Your task to perform on an android device: Open Google Chrome Image 0: 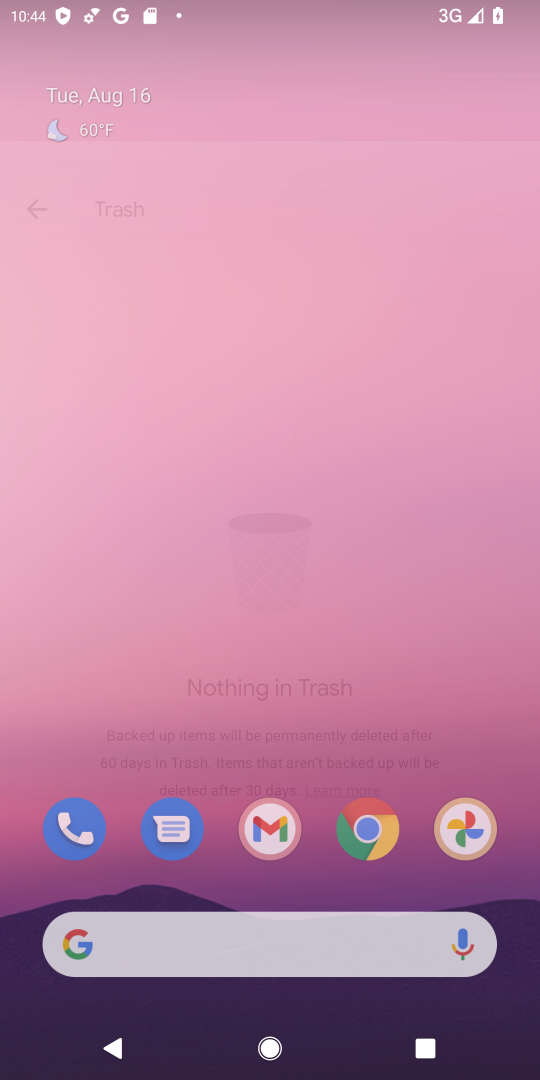
Step 0: press home button
Your task to perform on an android device: Open Google Chrome Image 1: 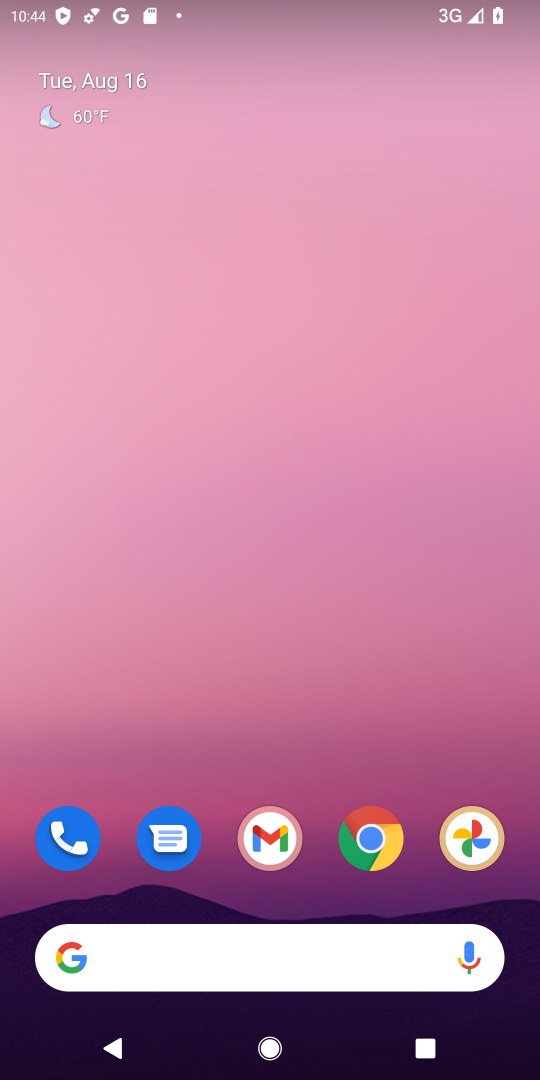
Step 1: click (364, 828)
Your task to perform on an android device: Open Google Chrome Image 2: 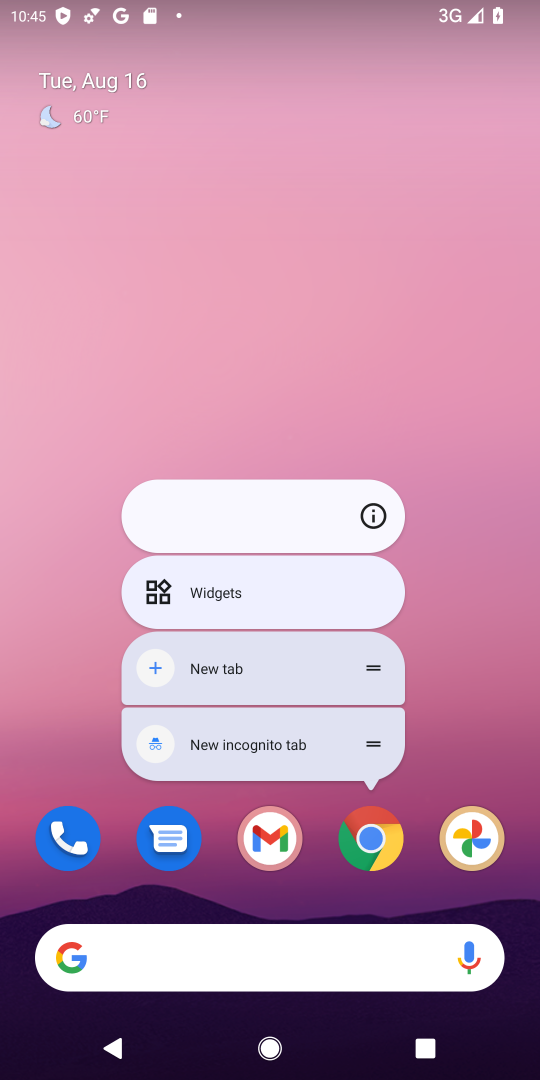
Step 2: click (371, 838)
Your task to perform on an android device: Open Google Chrome Image 3: 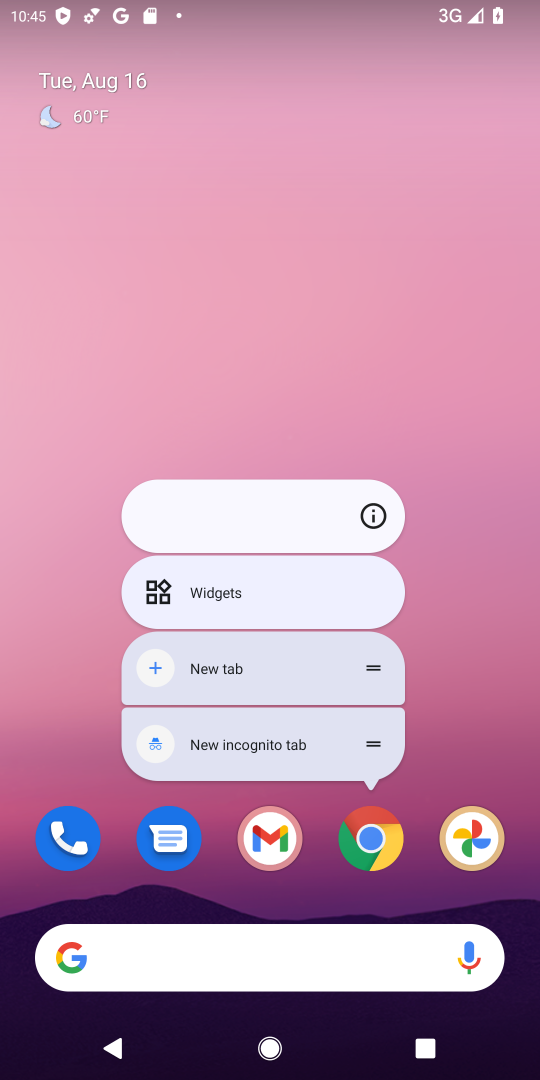
Step 3: click (357, 850)
Your task to perform on an android device: Open Google Chrome Image 4: 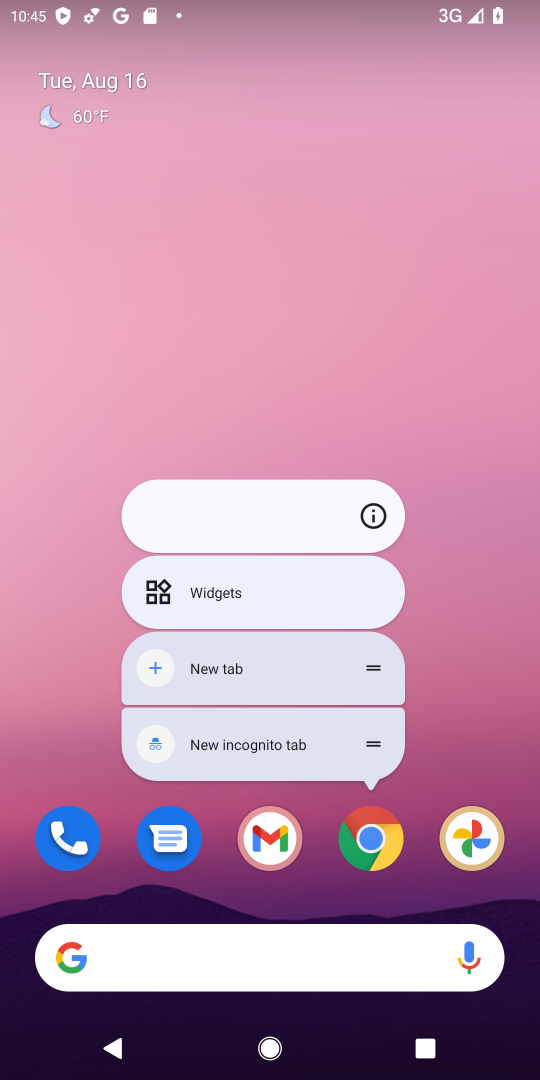
Step 4: click (371, 841)
Your task to perform on an android device: Open Google Chrome Image 5: 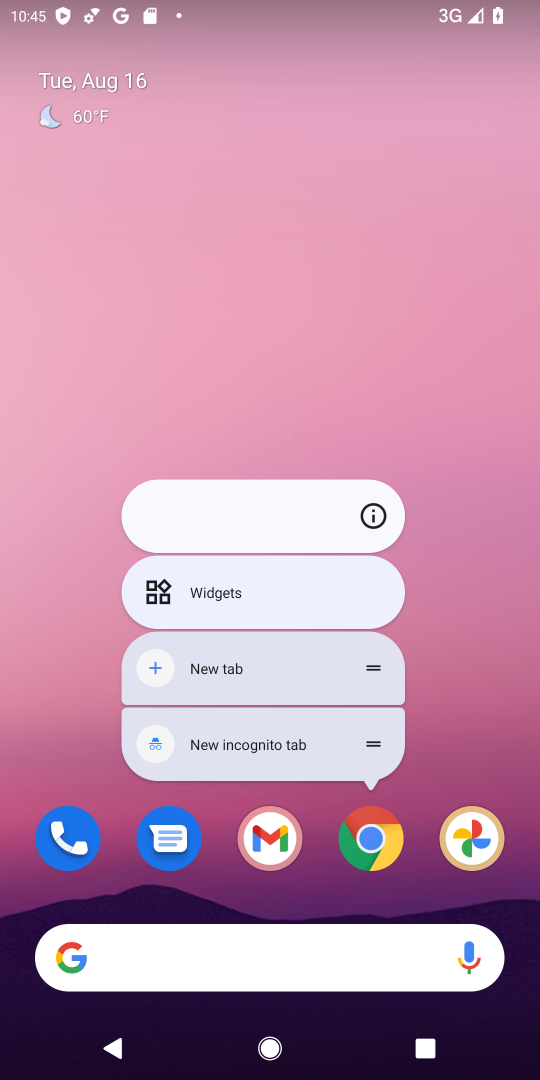
Step 5: click (351, 848)
Your task to perform on an android device: Open Google Chrome Image 6: 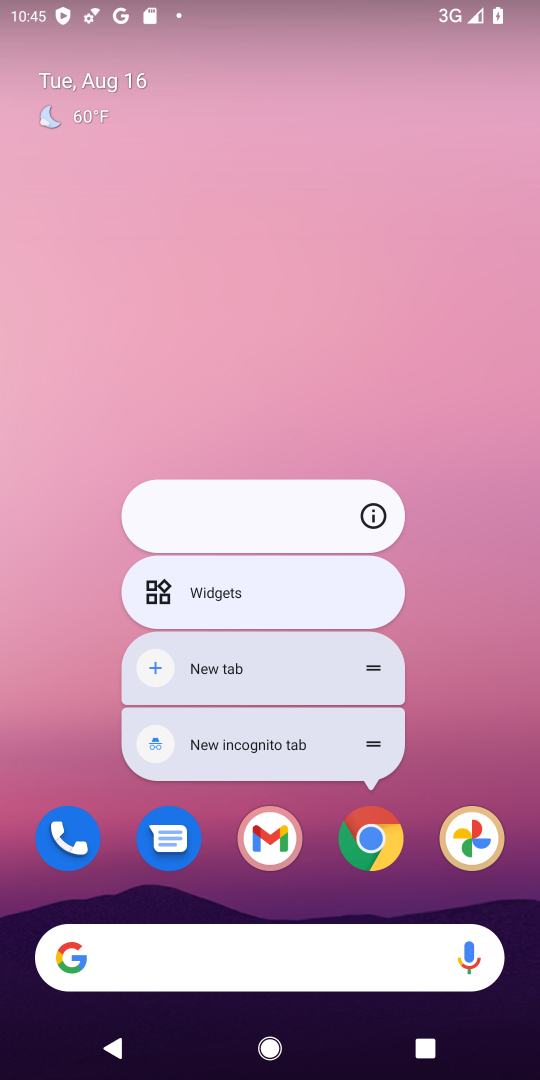
Step 6: click (377, 839)
Your task to perform on an android device: Open Google Chrome Image 7: 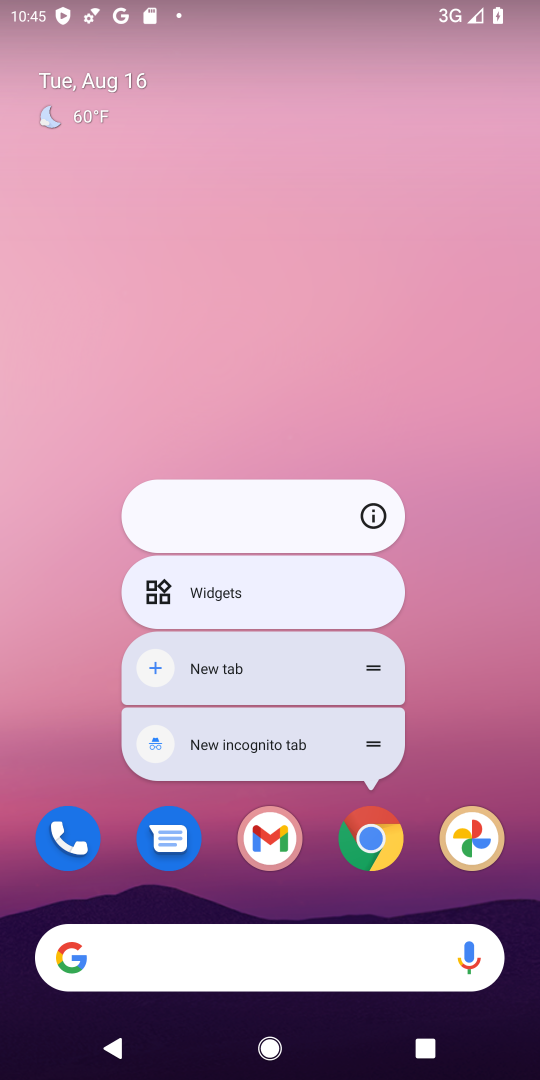
Step 7: click (379, 839)
Your task to perform on an android device: Open Google Chrome Image 8: 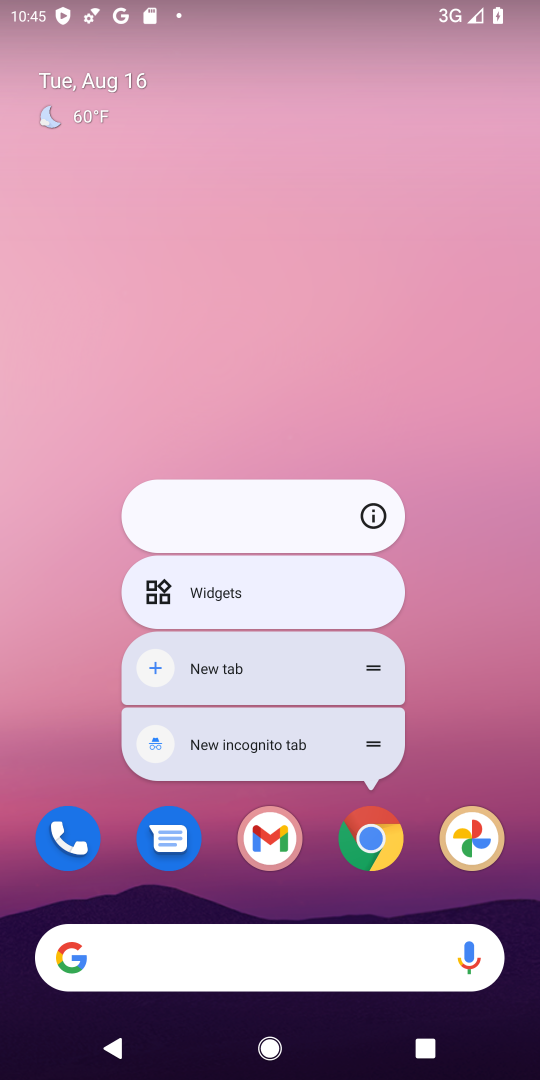
Step 8: click (379, 839)
Your task to perform on an android device: Open Google Chrome Image 9: 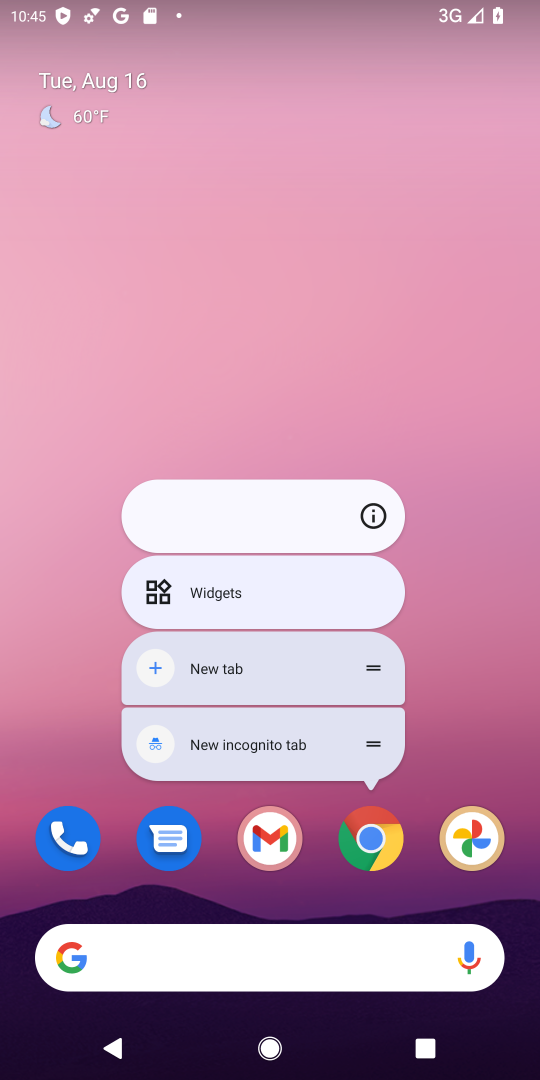
Step 9: click (379, 839)
Your task to perform on an android device: Open Google Chrome Image 10: 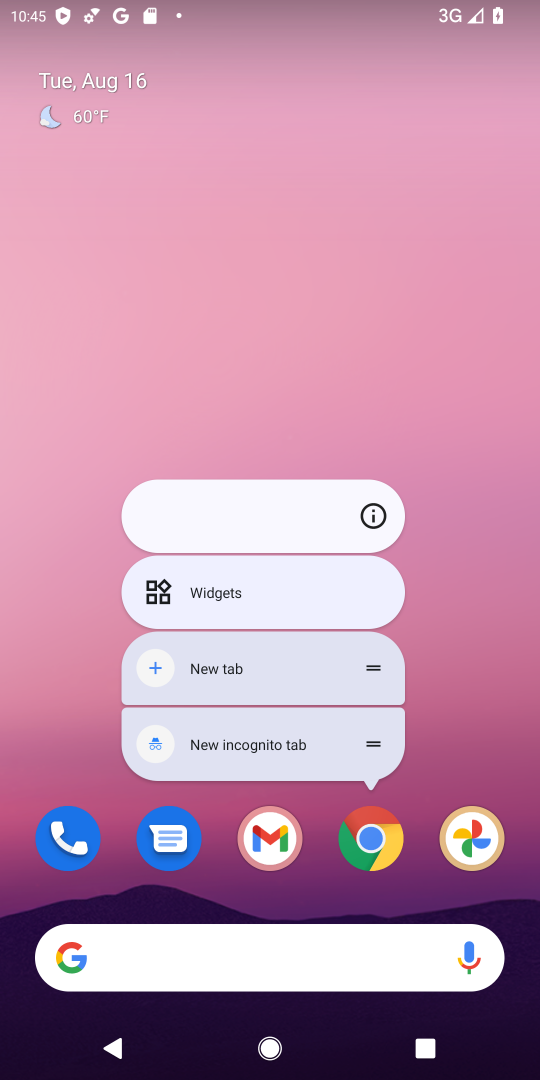
Step 10: click (379, 839)
Your task to perform on an android device: Open Google Chrome Image 11: 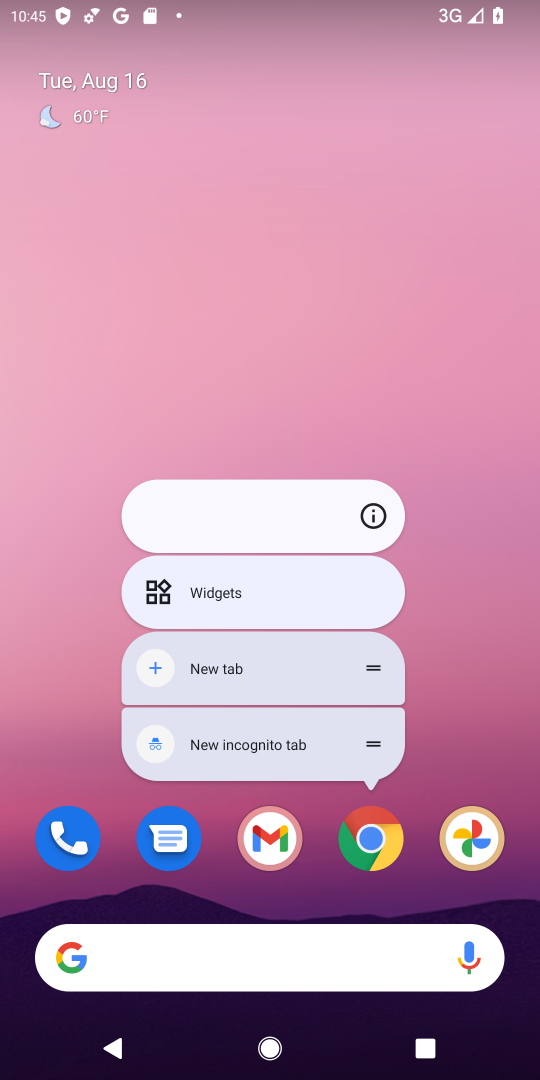
Step 11: click (379, 839)
Your task to perform on an android device: Open Google Chrome Image 12: 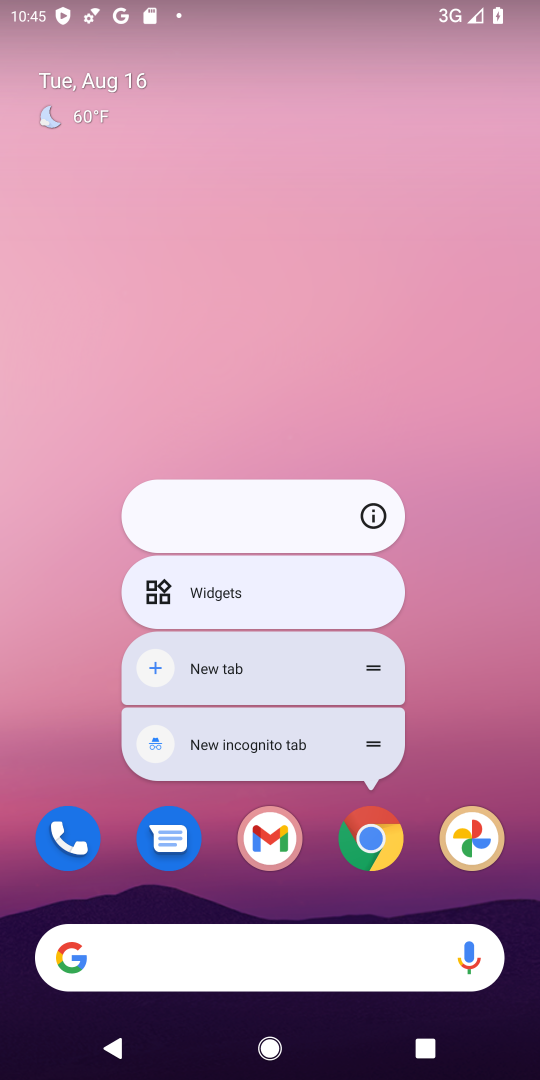
Step 12: click (379, 839)
Your task to perform on an android device: Open Google Chrome Image 13: 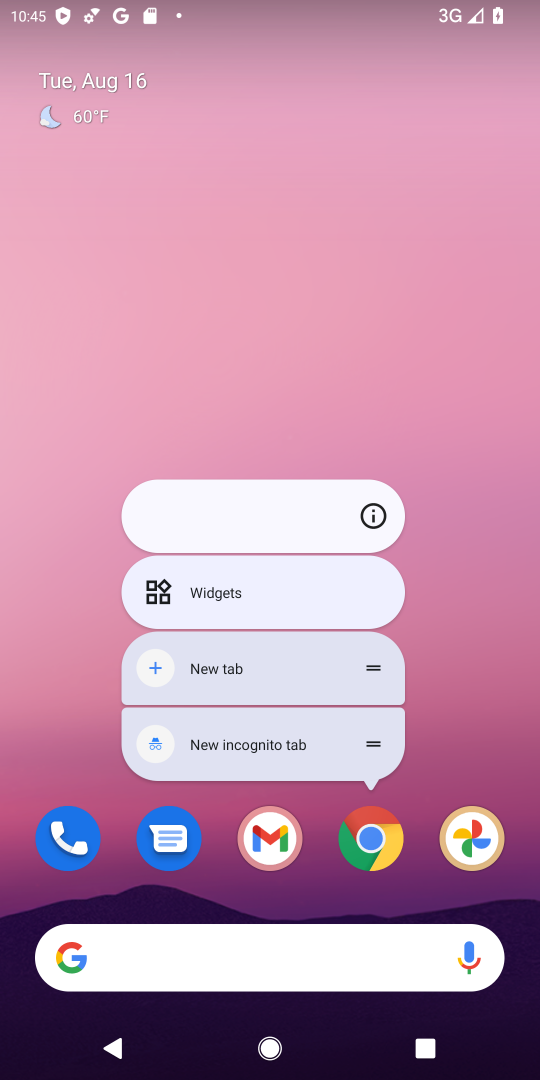
Step 13: click (358, 842)
Your task to perform on an android device: Open Google Chrome Image 14: 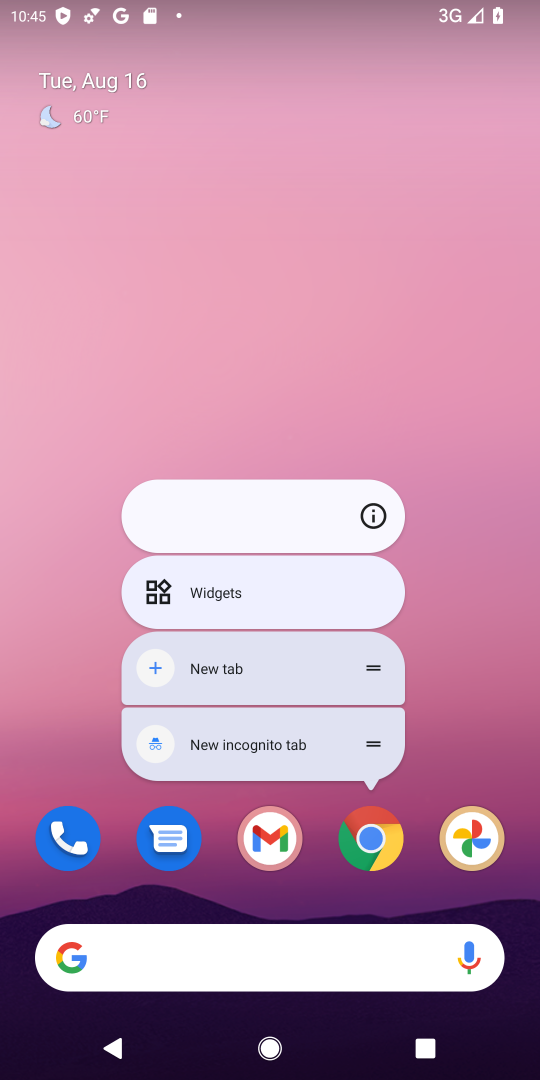
Step 14: click (379, 840)
Your task to perform on an android device: Open Google Chrome Image 15: 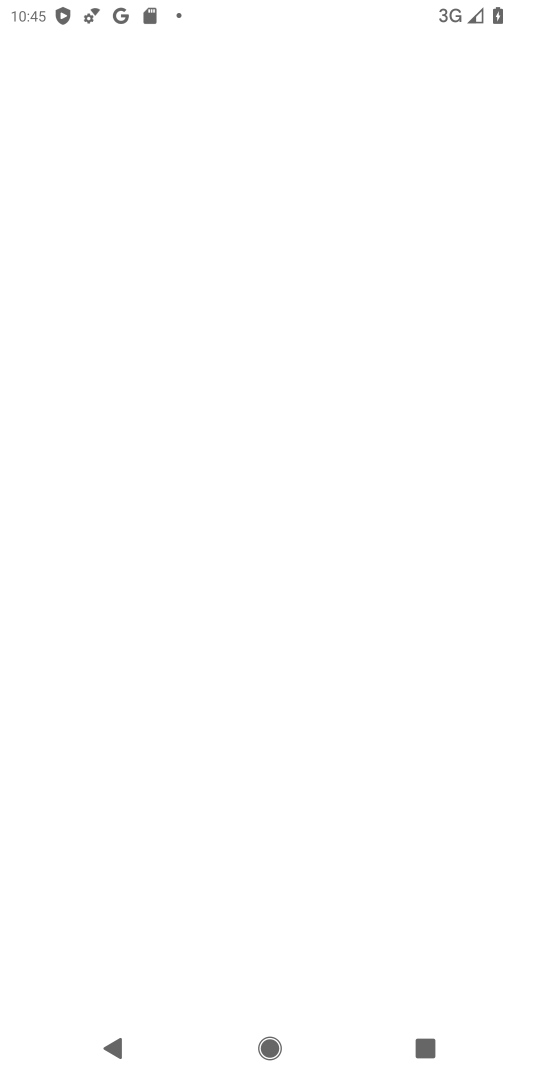
Step 15: click (379, 840)
Your task to perform on an android device: Open Google Chrome Image 16: 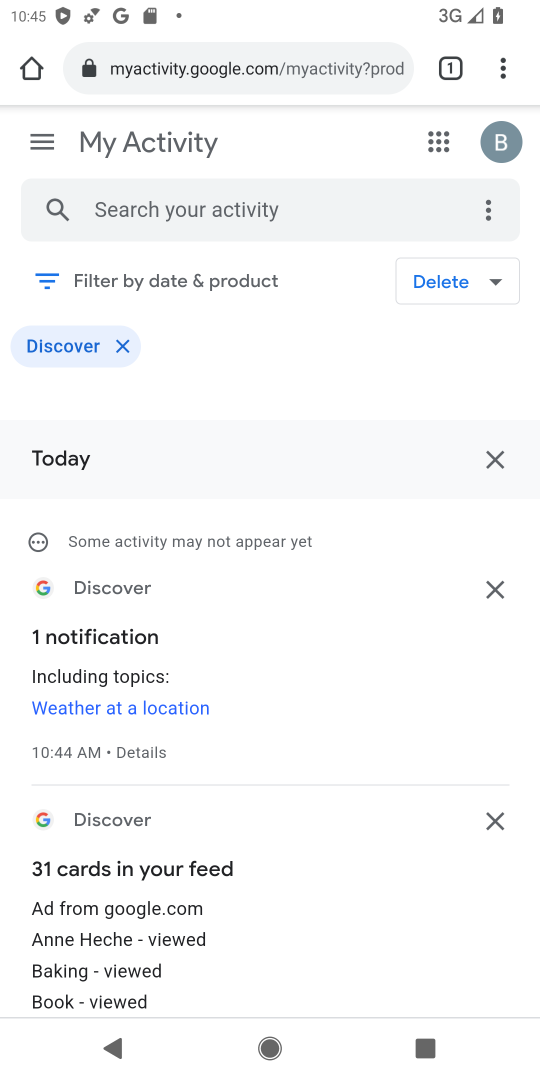
Step 16: click (446, 68)
Your task to perform on an android device: Open Google Chrome Image 17: 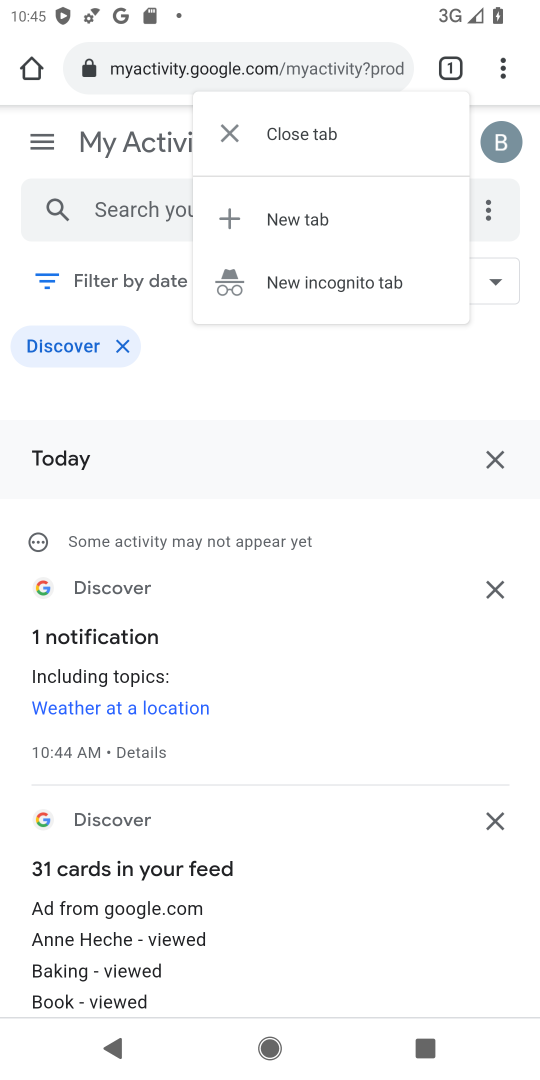
Step 17: click (285, 224)
Your task to perform on an android device: Open Google Chrome Image 18: 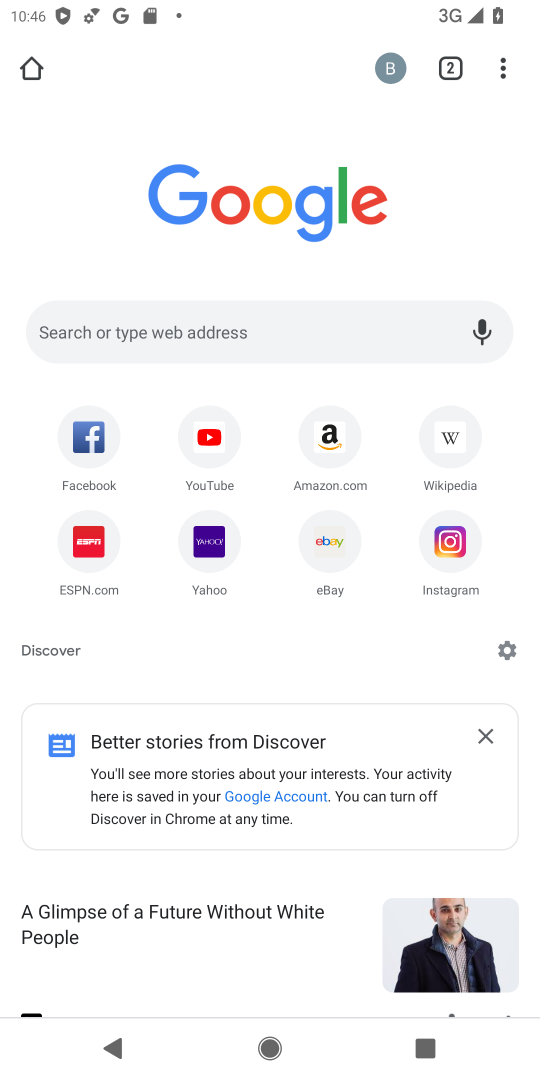
Step 18: task complete